Your task to perform on an android device: Do I have any events tomorrow? Image 0: 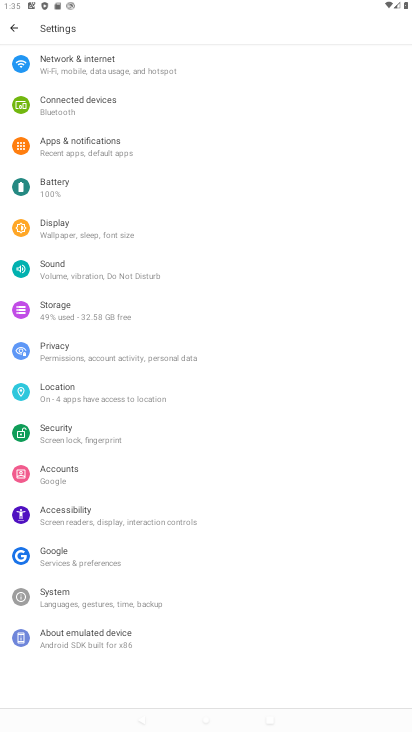
Step 0: press home button
Your task to perform on an android device: Do I have any events tomorrow? Image 1: 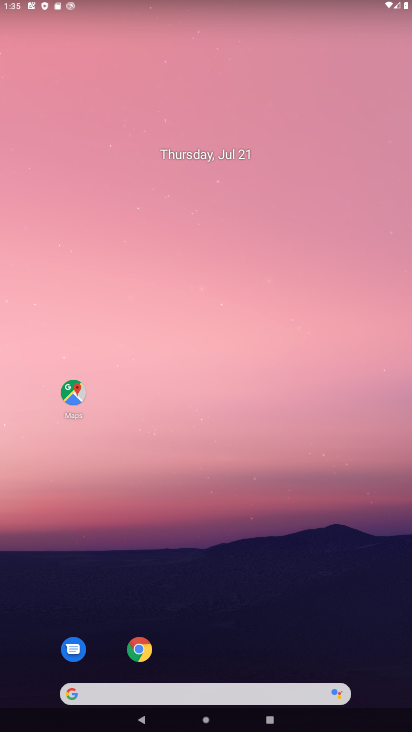
Step 1: drag from (231, 728) to (181, 153)
Your task to perform on an android device: Do I have any events tomorrow? Image 2: 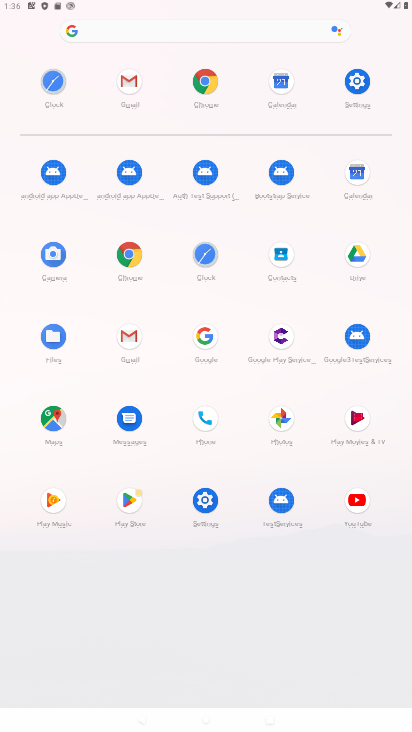
Step 2: click (354, 171)
Your task to perform on an android device: Do I have any events tomorrow? Image 3: 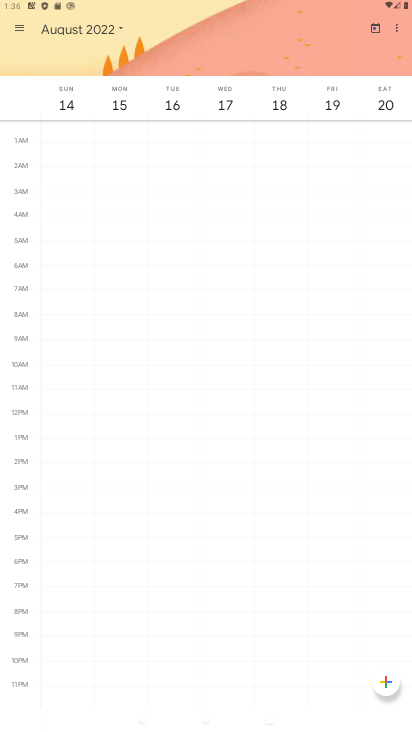
Step 3: click (117, 26)
Your task to perform on an android device: Do I have any events tomorrow? Image 4: 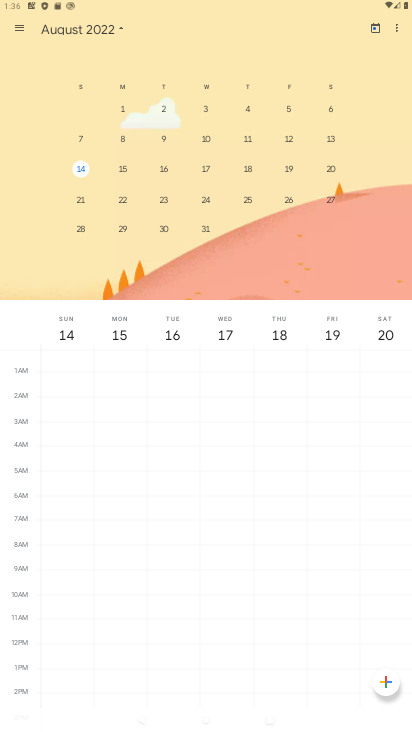
Step 4: drag from (94, 187) to (321, 192)
Your task to perform on an android device: Do I have any events tomorrow? Image 5: 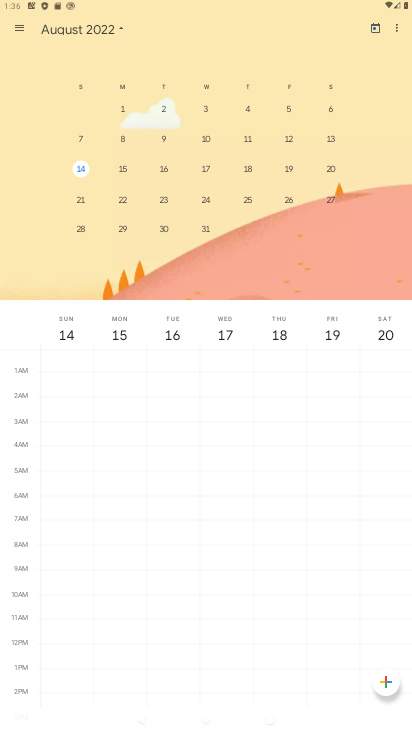
Step 5: drag from (98, 174) to (336, 162)
Your task to perform on an android device: Do I have any events tomorrow? Image 6: 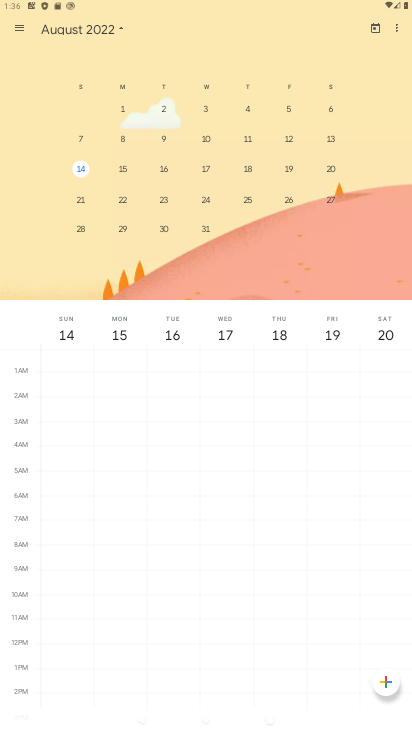
Step 6: drag from (109, 163) to (332, 142)
Your task to perform on an android device: Do I have any events tomorrow? Image 7: 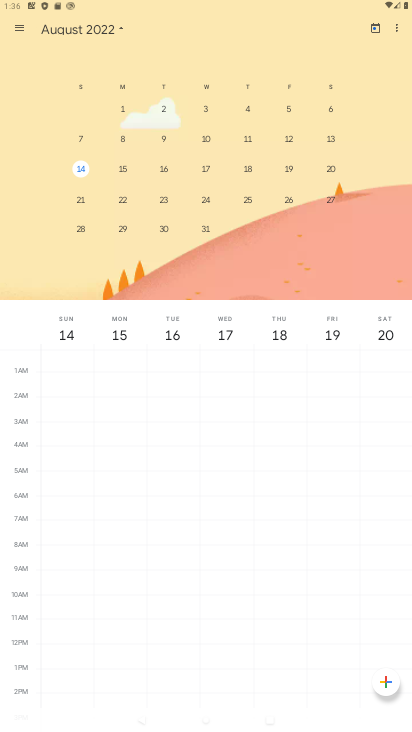
Step 7: drag from (84, 132) to (353, 136)
Your task to perform on an android device: Do I have any events tomorrow? Image 8: 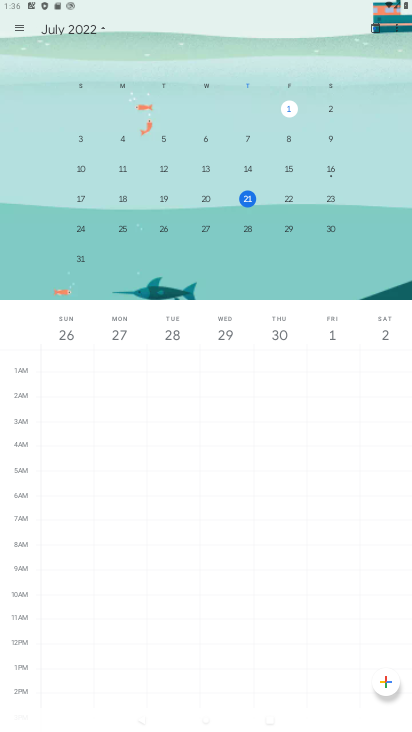
Step 8: click (288, 192)
Your task to perform on an android device: Do I have any events tomorrow? Image 9: 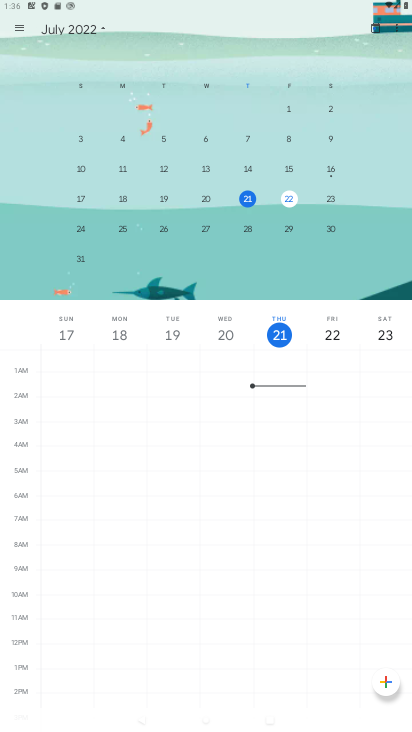
Step 9: click (329, 333)
Your task to perform on an android device: Do I have any events tomorrow? Image 10: 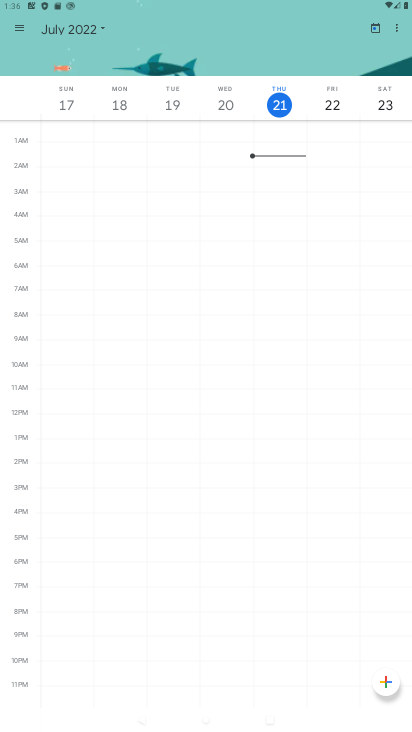
Step 10: click (333, 105)
Your task to perform on an android device: Do I have any events tomorrow? Image 11: 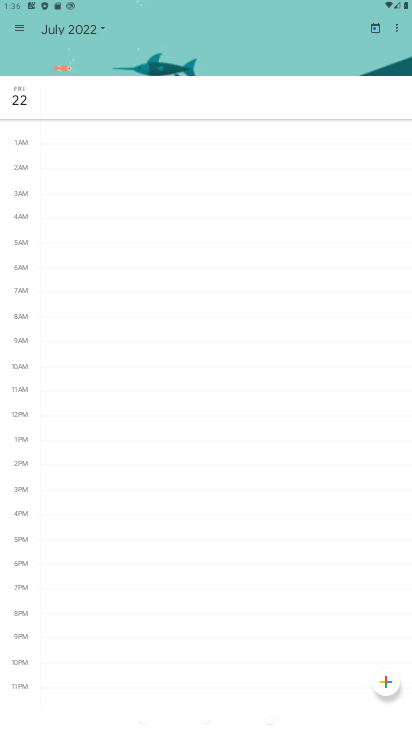
Step 11: task complete